Your task to perform on an android device: change the clock display to analog Image 0: 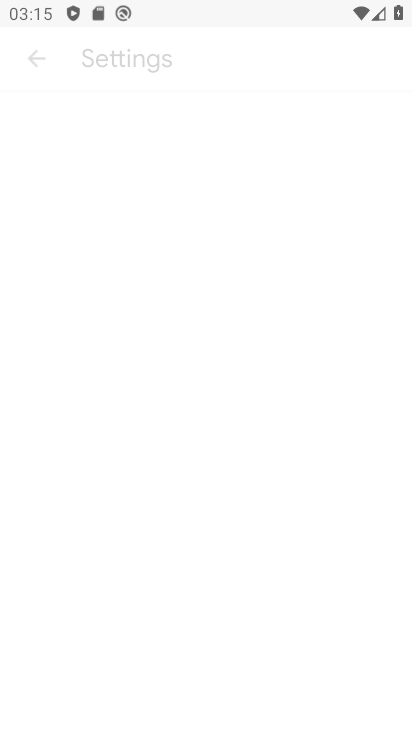
Step 0: click (55, 385)
Your task to perform on an android device: change the clock display to analog Image 1: 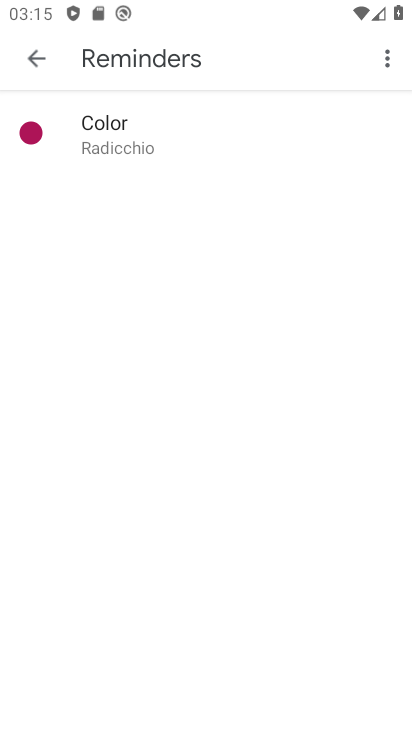
Step 1: press home button
Your task to perform on an android device: change the clock display to analog Image 2: 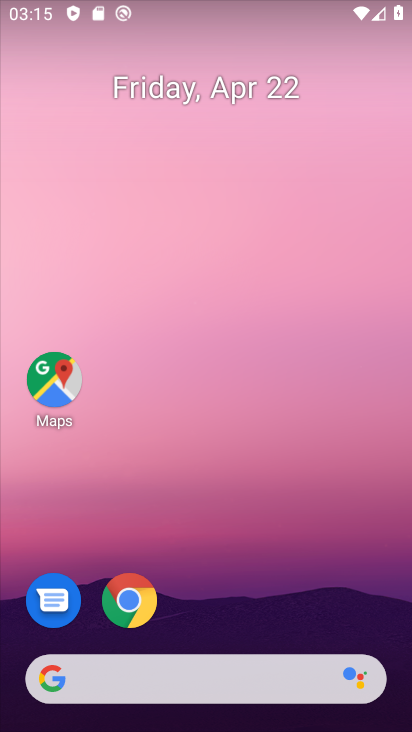
Step 2: drag from (215, 566) to (276, 182)
Your task to perform on an android device: change the clock display to analog Image 3: 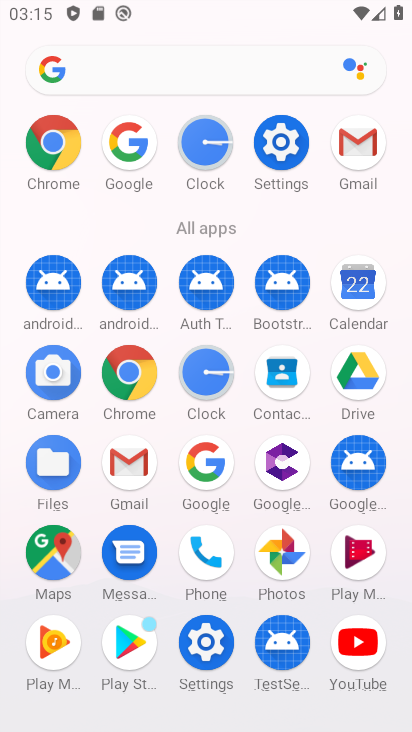
Step 3: click (204, 371)
Your task to perform on an android device: change the clock display to analog Image 4: 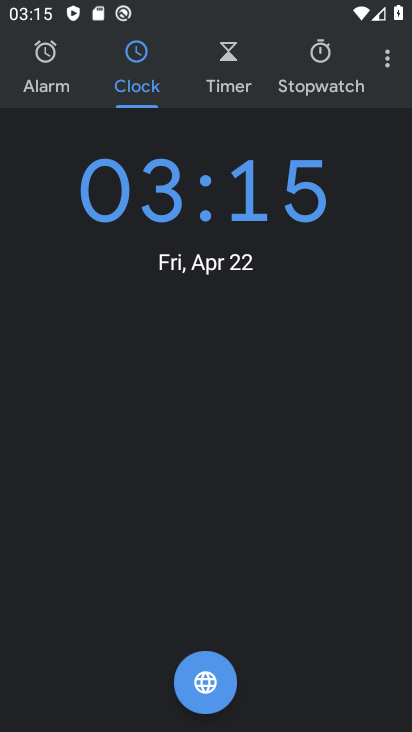
Step 4: click (387, 67)
Your task to perform on an android device: change the clock display to analog Image 5: 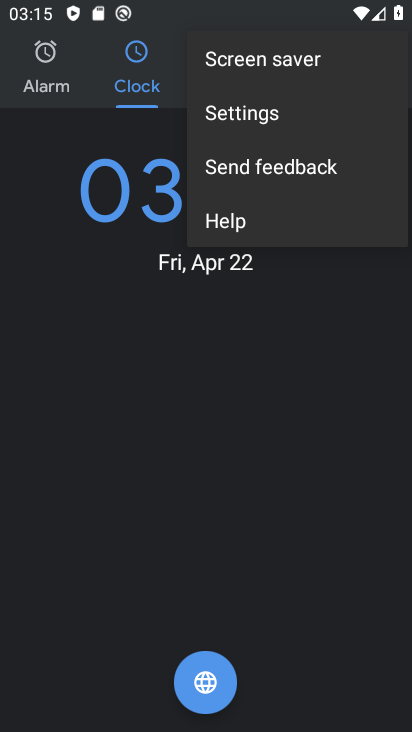
Step 5: click (259, 109)
Your task to perform on an android device: change the clock display to analog Image 6: 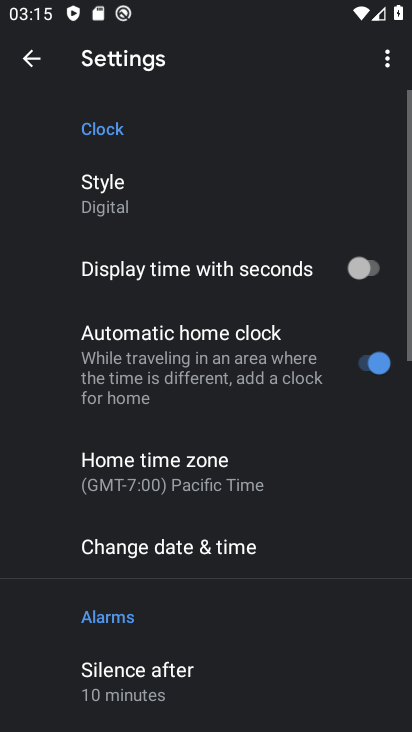
Step 6: click (90, 199)
Your task to perform on an android device: change the clock display to analog Image 7: 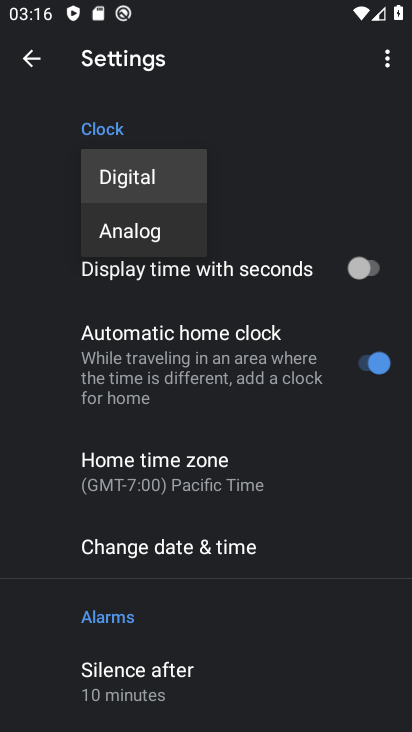
Step 7: click (136, 230)
Your task to perform on an android device: change the clock display to analog Image 8: 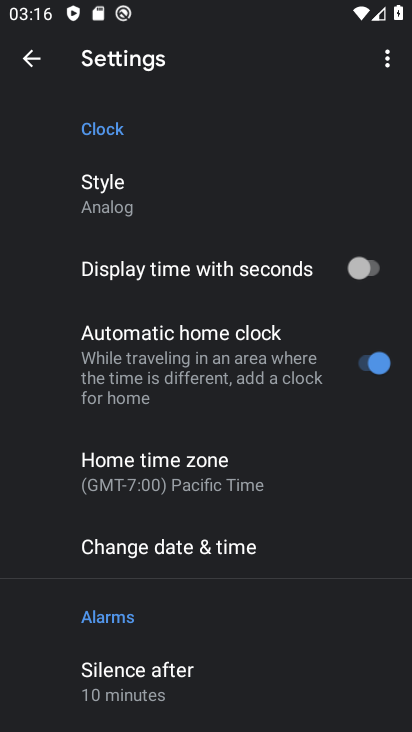
Step 8: task complete